Your task to perform on an android device: delete the emails in spam in the gmail app Image 0: 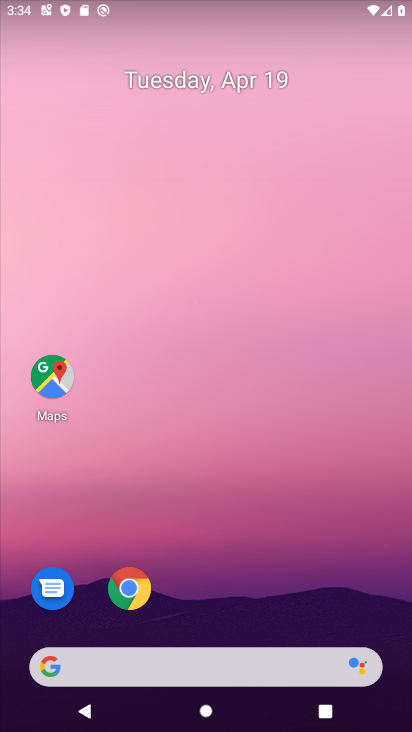
Step 0: drag from (224, 498) to (220, 84)
Your task to perform on an android device: delete the emails in spam in the gmail app Image 1: 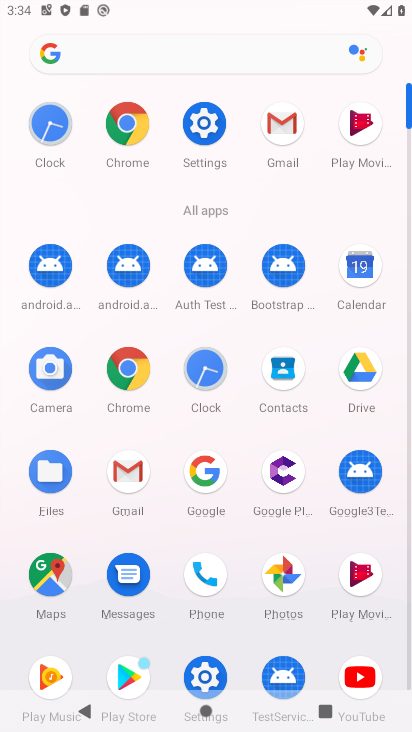
Step 1: click (132, 475)
Your task to perform on an android device: delete the emails in spam in the gmail app Image 2: 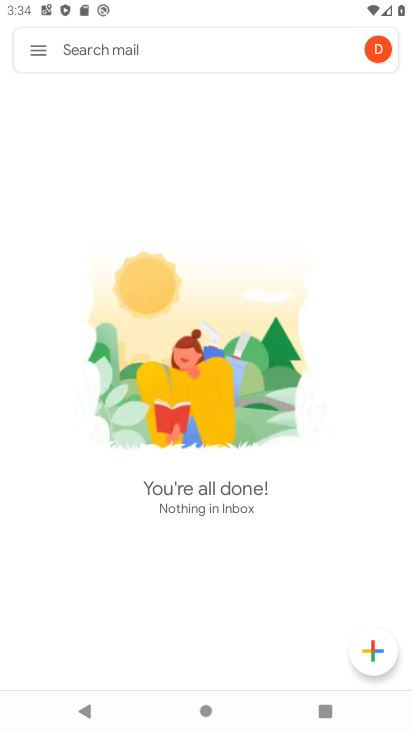
Step 2: click (38, 49)
Your task to perform on an android device: delete the emails in spam in the gmail app Image 3: 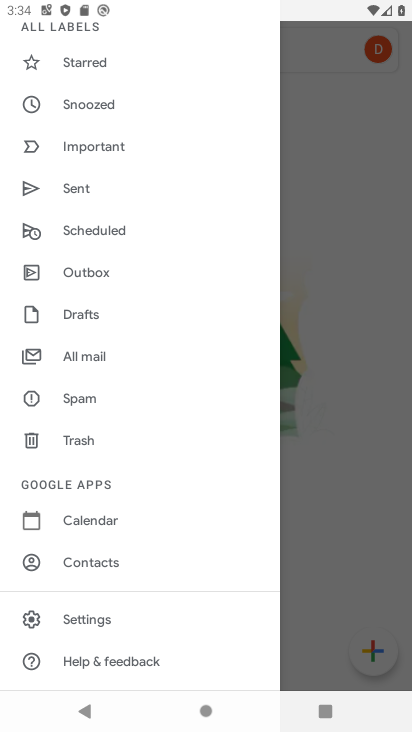
Step 3: click (93, 358)
Your task to perform on an android device: delete the emails in spam in the gmail app Image 4: 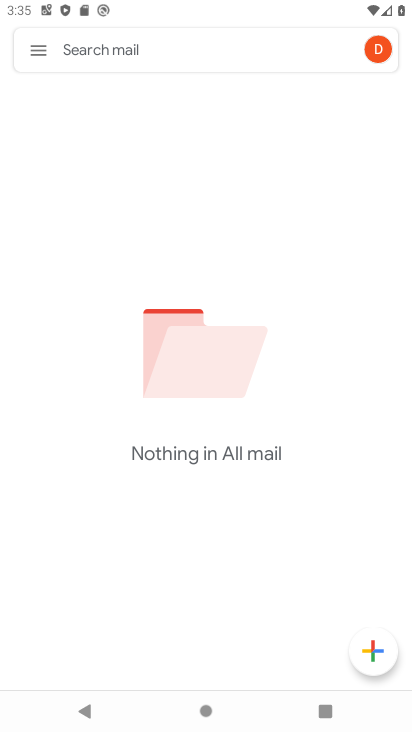
Step 4: task complete